Your task to perform on an android device: open chrome privacy settings Image 0: 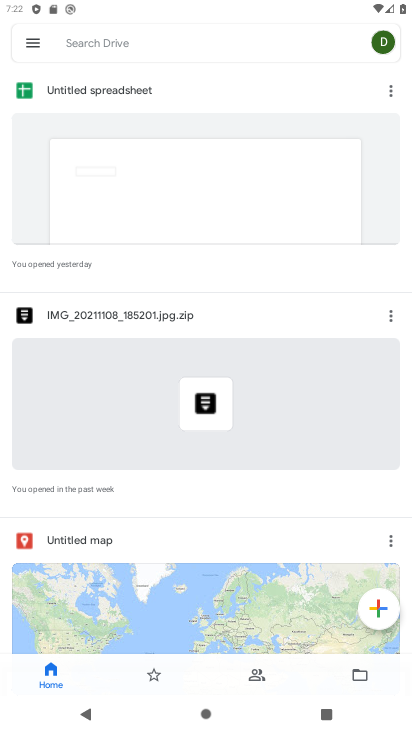
Step 0: press home button
Your task to perform on an android device: open chrome privacy settings Image 1: 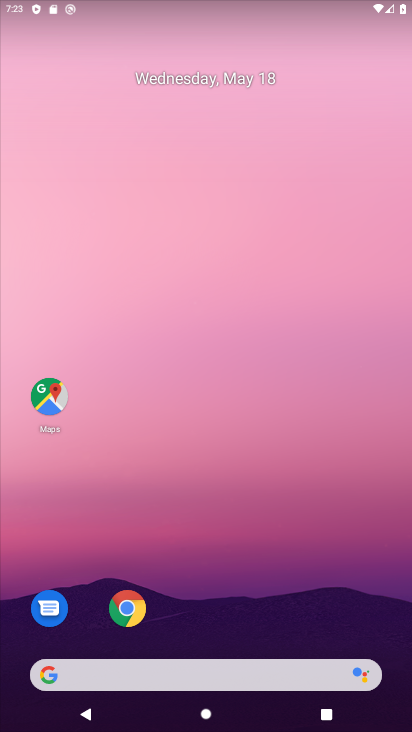
Step 1: click (129, 620)
Your task to perform on an android device: open chrome privacy settings Image 2: 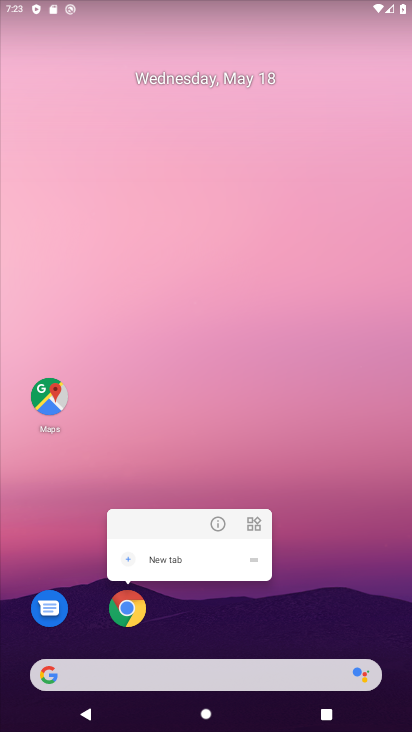
Step 2: click (140, 614)
Your task to perform on an android device: open chrome privacy settings Image 3: 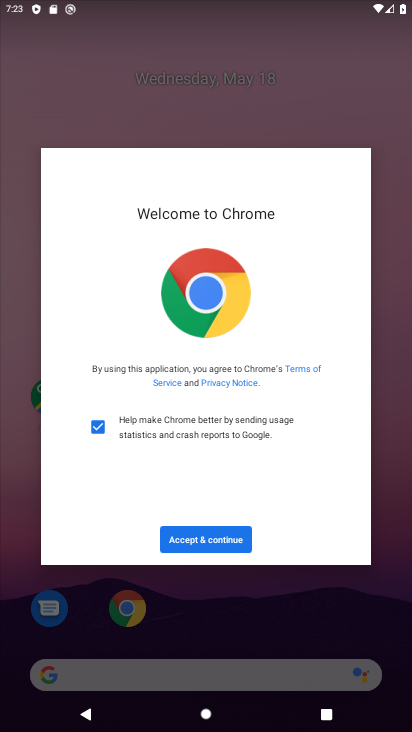
Step 3: click (226, 548)
Your task to perform on an android device: open chrome privacy settings Image 4: 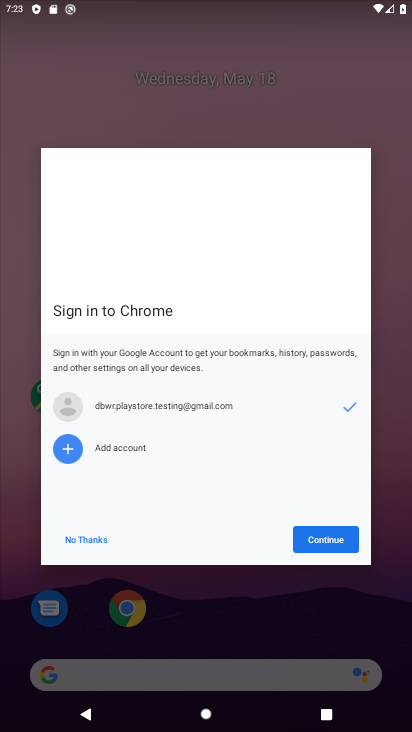
Step 4: click (226, 548)
Your task to perform on an android device: open chrome privacy settings Image 5: 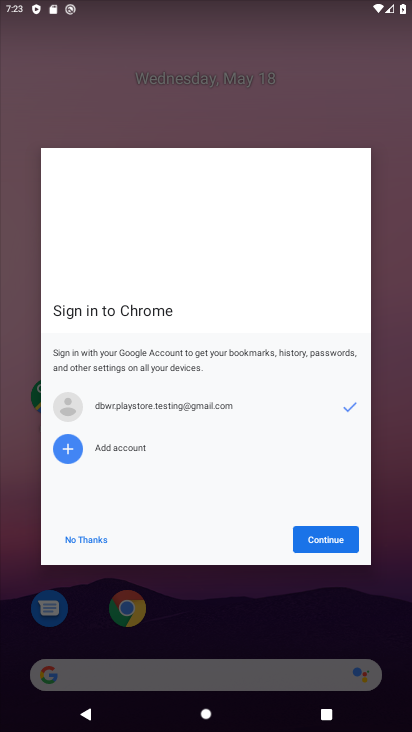
Step 5: click (313, 539)
Your task to perform on an android device: open chrome privacy settings Image 6: 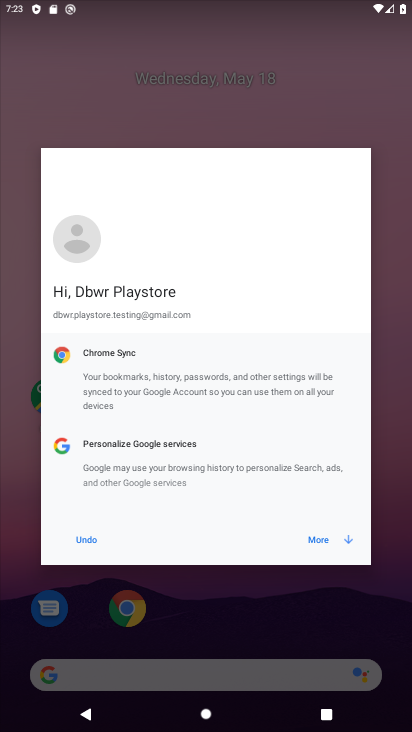
Step 6: click (313, 539)
Your task to perform on an android device: open chrome privacy settings Image 7: 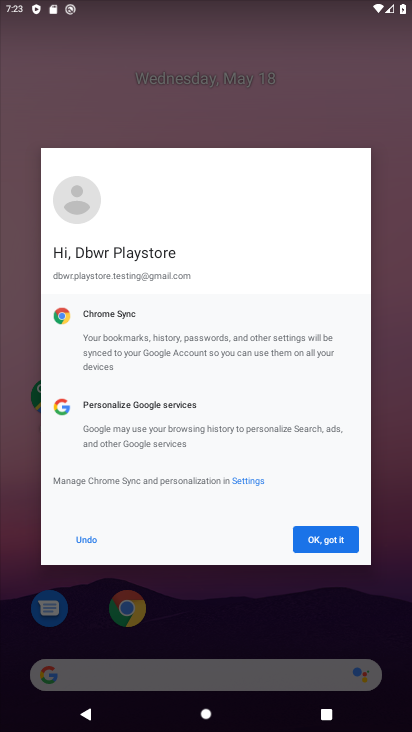
Step 7: click (313, 539)
Your task to perform on an android device: open chrome privacy settings Image 8: 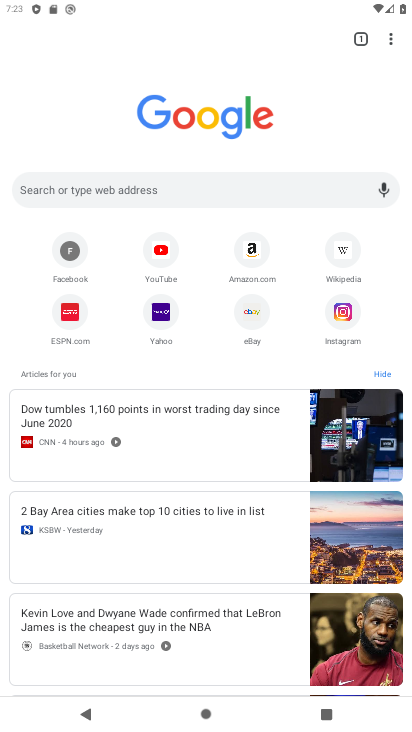
Step 8: click (397, 41)
Your task to perform on an android device: open chrome privacy settings Image 9: 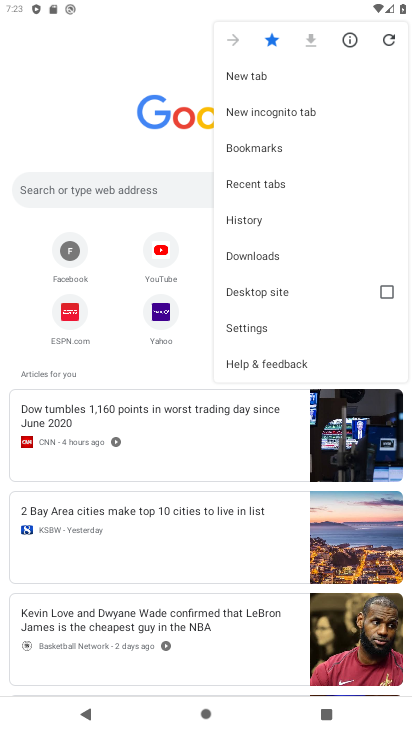
Step 9: click (246, 325)
Your task to perform on an android device: open chrome privacy settings Image 10: 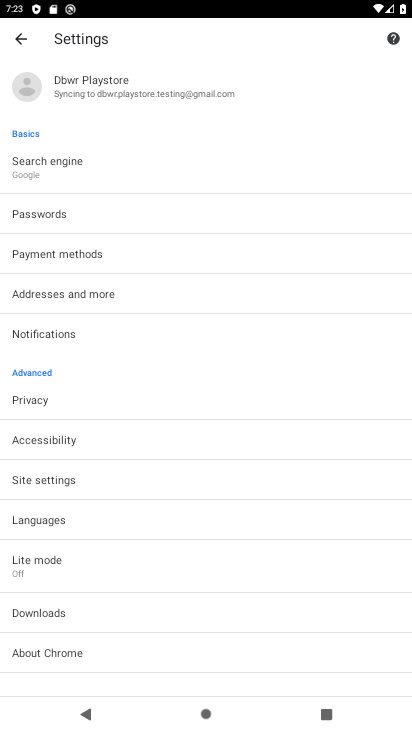
Step 10: click (83, 387)
Your task to perform on an android device: open chrome privacy settings Image 11: 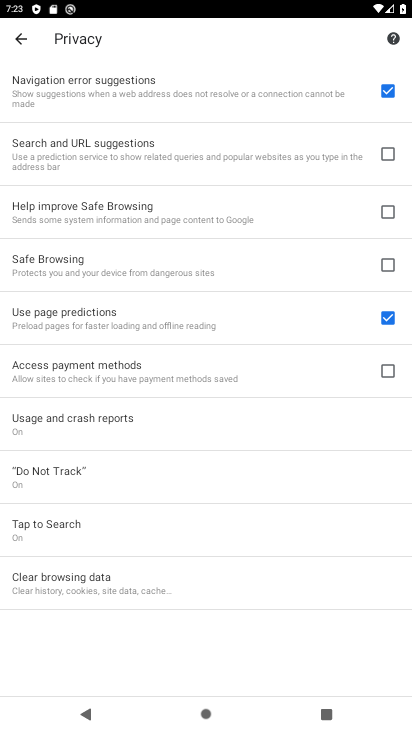
Step 11: task complete